Your task to perform on an android device: Go to Amazon Image 0: 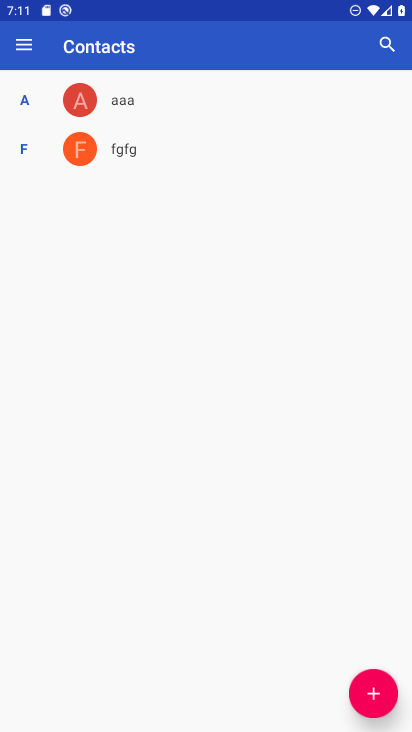
Step 0: press home button
Your task to perform on an android device: Go to Amazon Image 1: 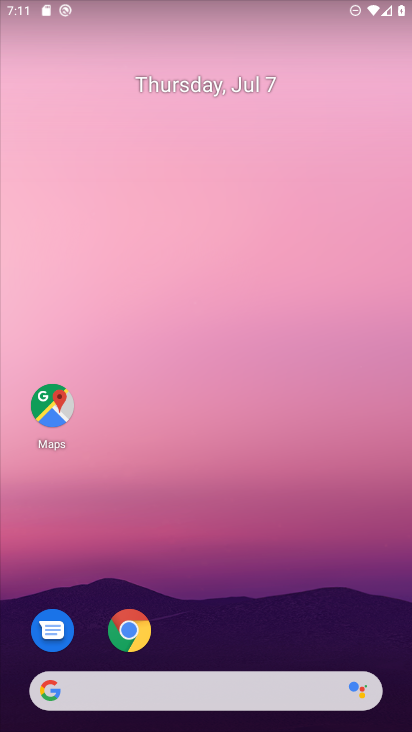
Step 1: click (124, 627)
Your task to perform on an android device: Go to Amazon Image 2: 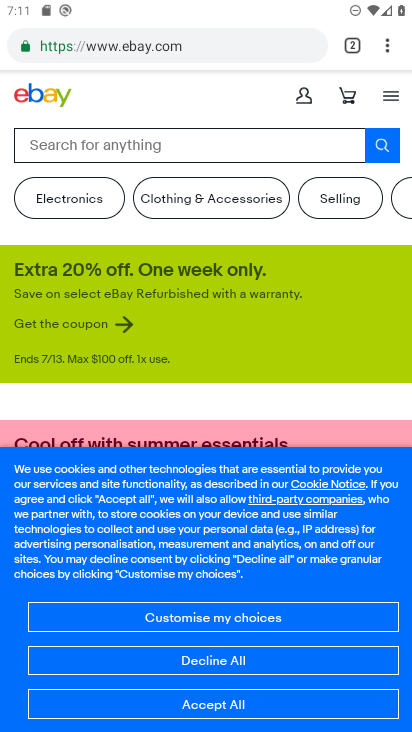
Step 2: click (385, 39)
Your task to perform on an android device: Go to Amazon Image 3: 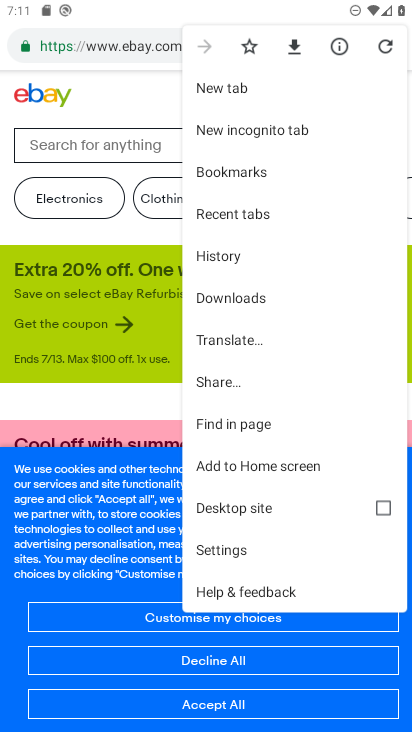
Step 3: click (230, 86)
Your task to perform on an android device: Go to Amazon Image 4: 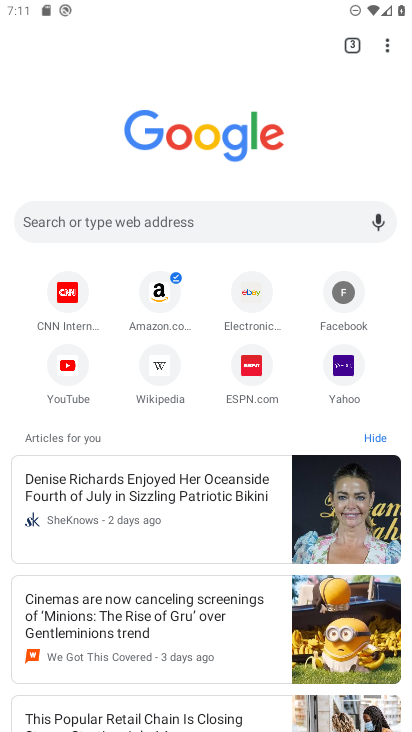
Step 4: click (158, 290)
Your task to perform on an android device: Go to Amazon Image 5: 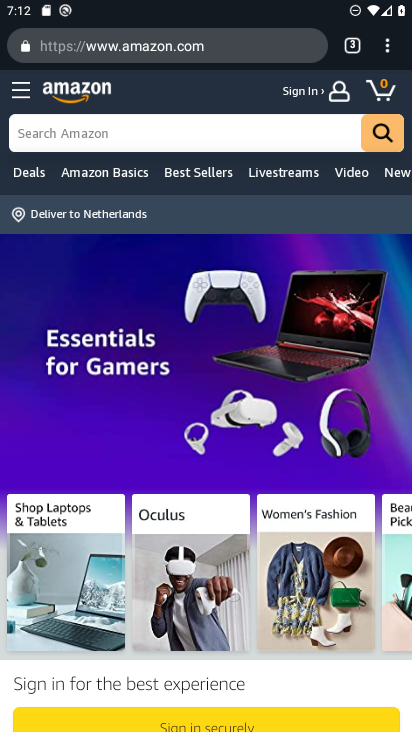
Step 5: task complete